Your task to perform on an android device: Open the calendar app, open the side menu, and click the "Day" option Image 0: 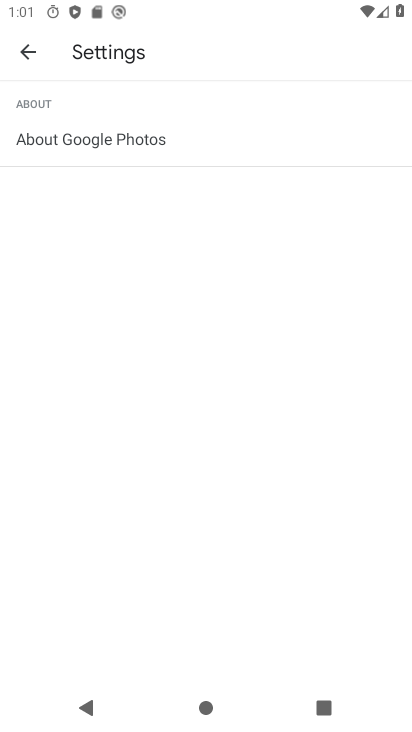
Step 0: press home button
Your task to perform on an android device: Open the calendar app, open the side menu, and click the "Day" option Image 1: 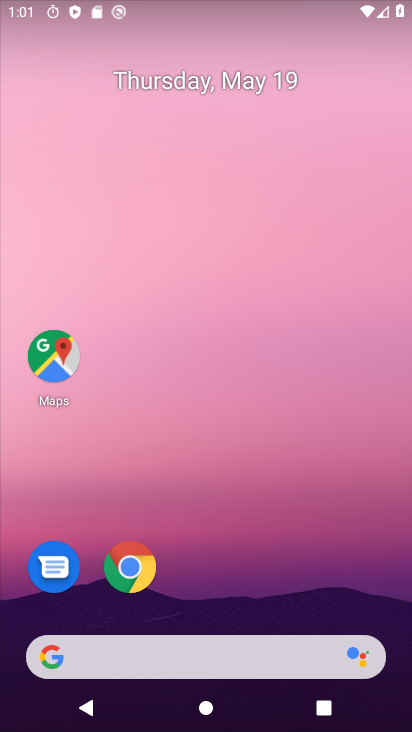
Step 1: drag from (211, 666) to (355, 207)
Your task to perform on an android device: Open the calendar app, open the side menu, and click the "Day" option Image 2: 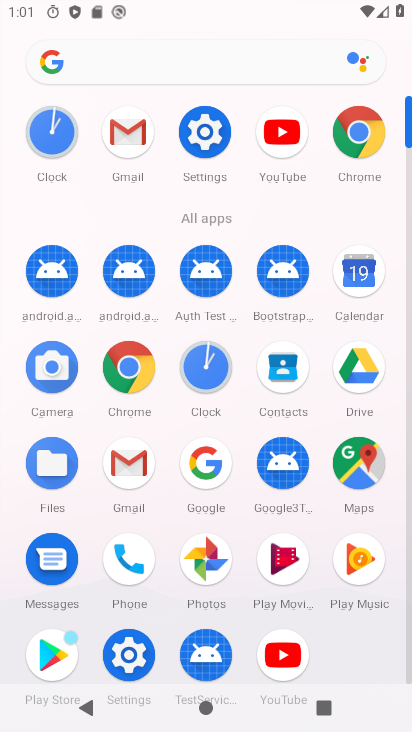
Step 2: click (356, 275)
Your task to perform on an android device: Open the calendar app, open the side menu, and click the "Day" option Image 3: 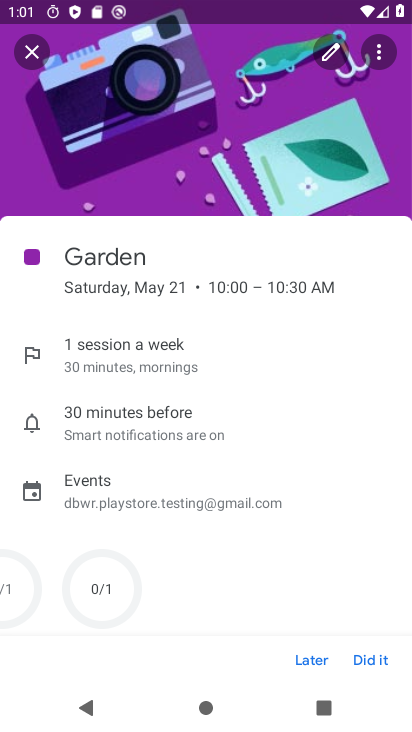
Step 3: click (30, 60)
Your task to perform on an android device: Open the calendar app, open the side menu, and click the "Day" option Image 4: 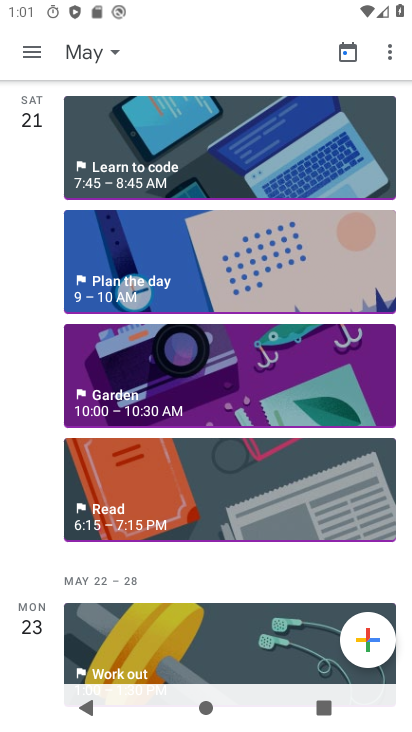
Step 4: click (35, 47)
Your task to perform on an android device: Open the calendar app, open the side menu, and click the "Day" option Image 5: 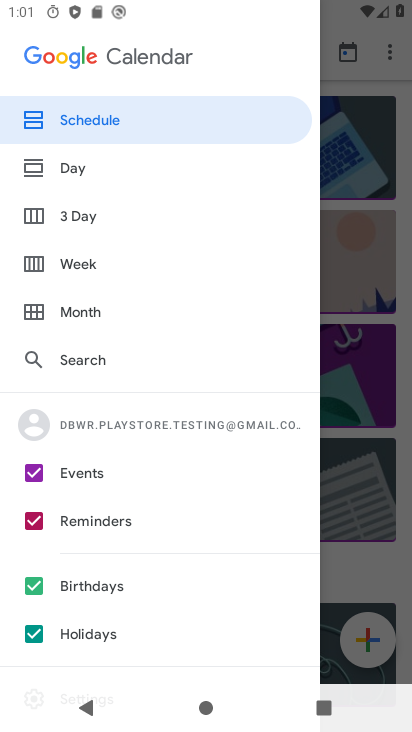
Step 5: click (80, 173)
Your task to perform on an android device: Open the calendar app, open the side menu, and click the "Day" option Image 6: 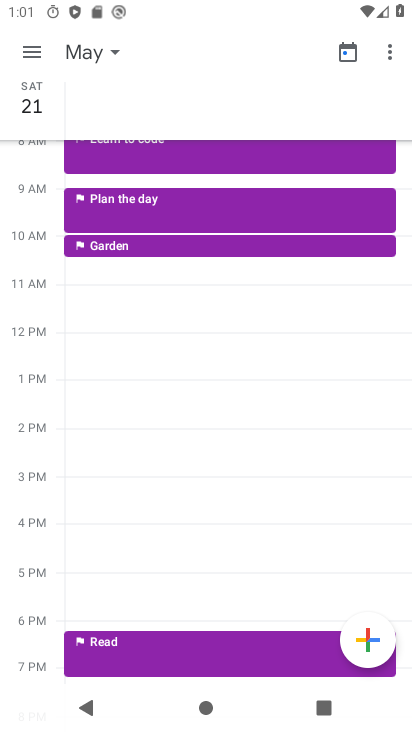
Step 6: task complete